Your task to perform on an android device: stop showing notifications on the lock screen Image 0: 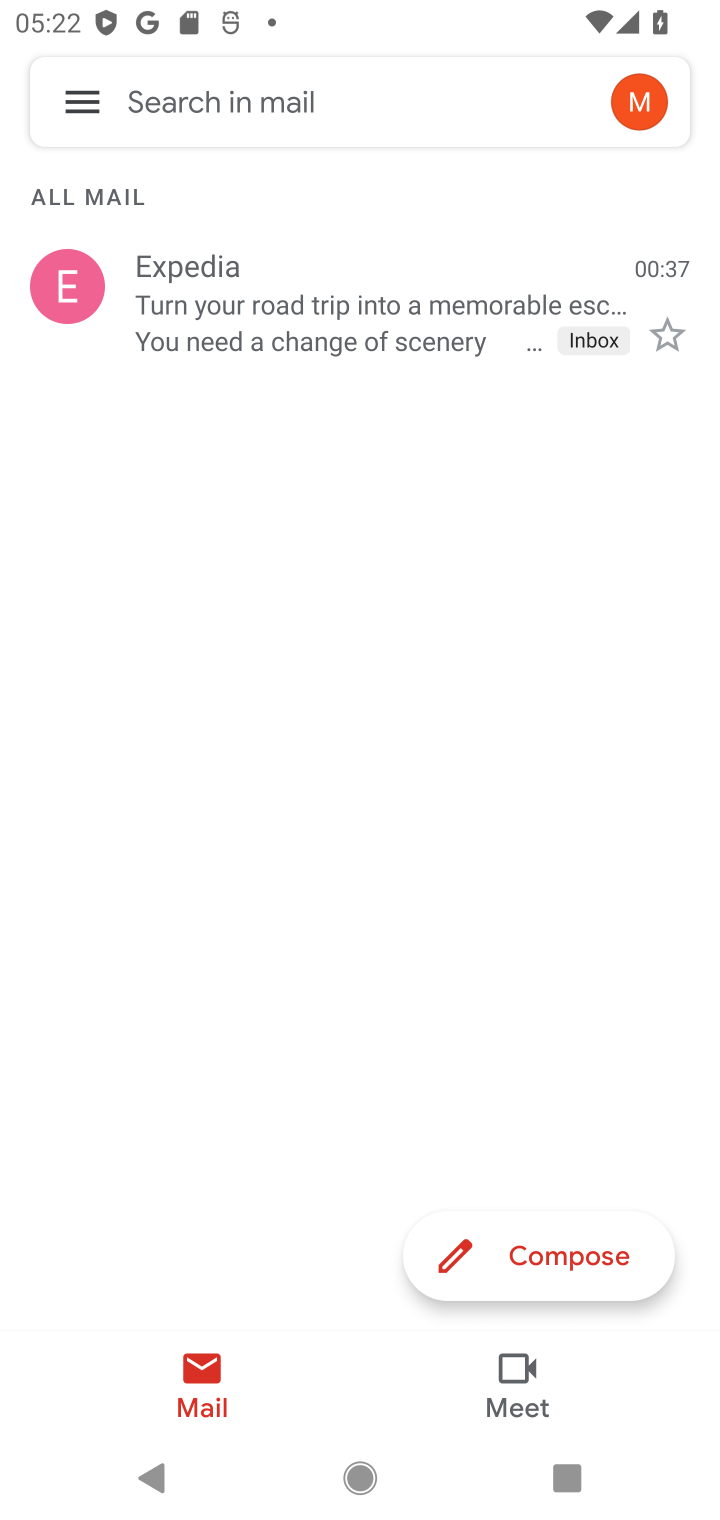
Step 0: press home button
Your task to perform on an android device: stop showing notifications on the lock screen Image 1: 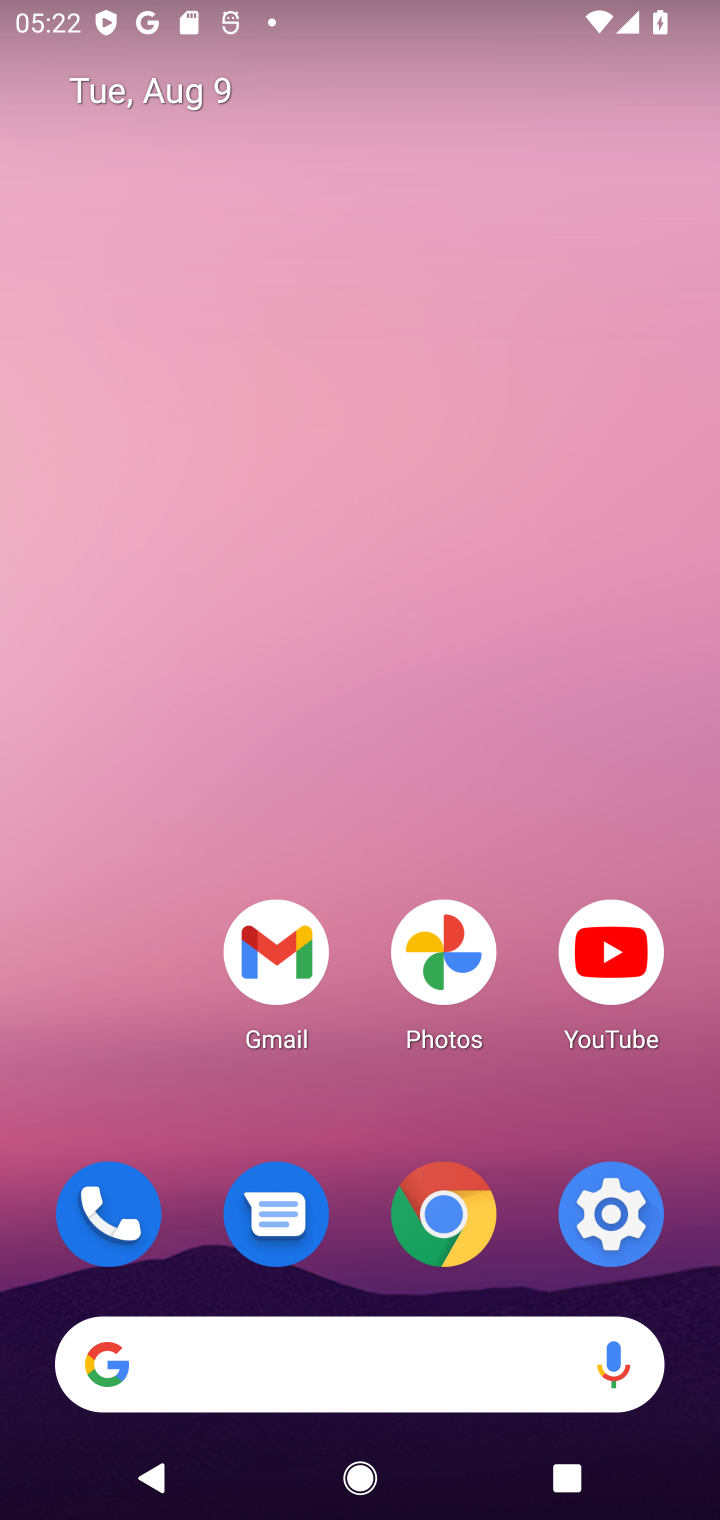
Step 1: drag from (406, 1390) to (329, 369)
Your task to perform on an android device: stop showing notifications on the lock screen Image 2: 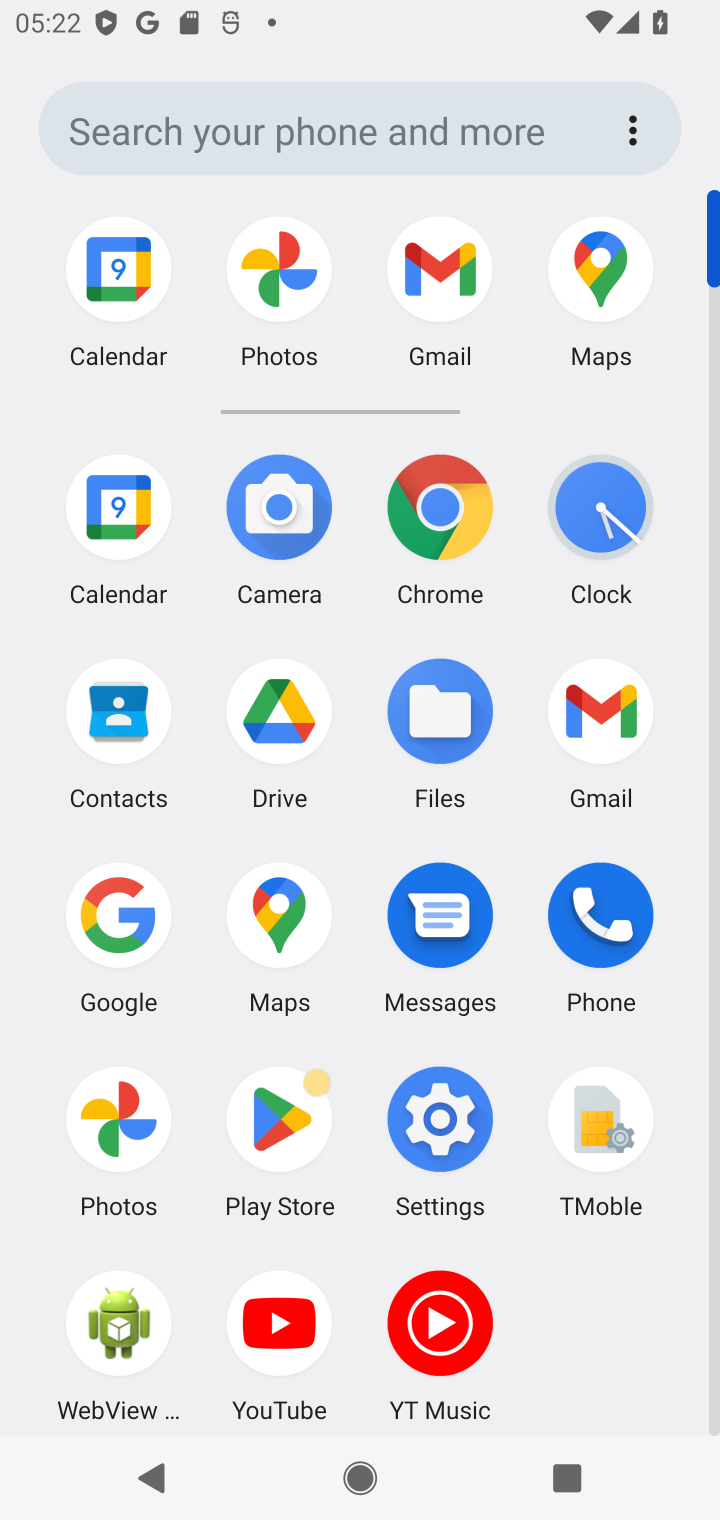
Step 2: click (444, 1111)
Your task to perform on an android device: stop showing notifications on the lock screen Image 3: 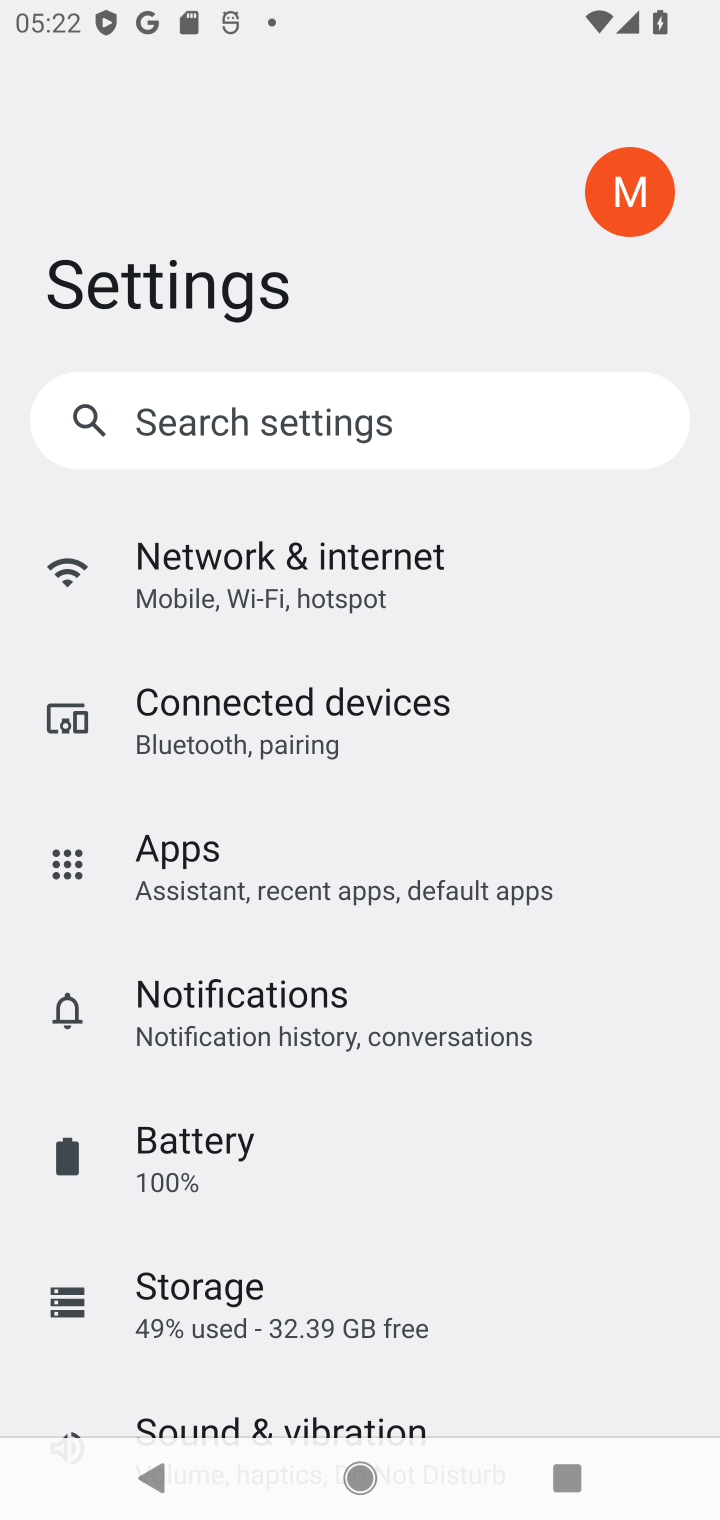
Step 3: click (268, 415)
Your task to perform on an android device: stop showing notifications on the lock screen Image 4: 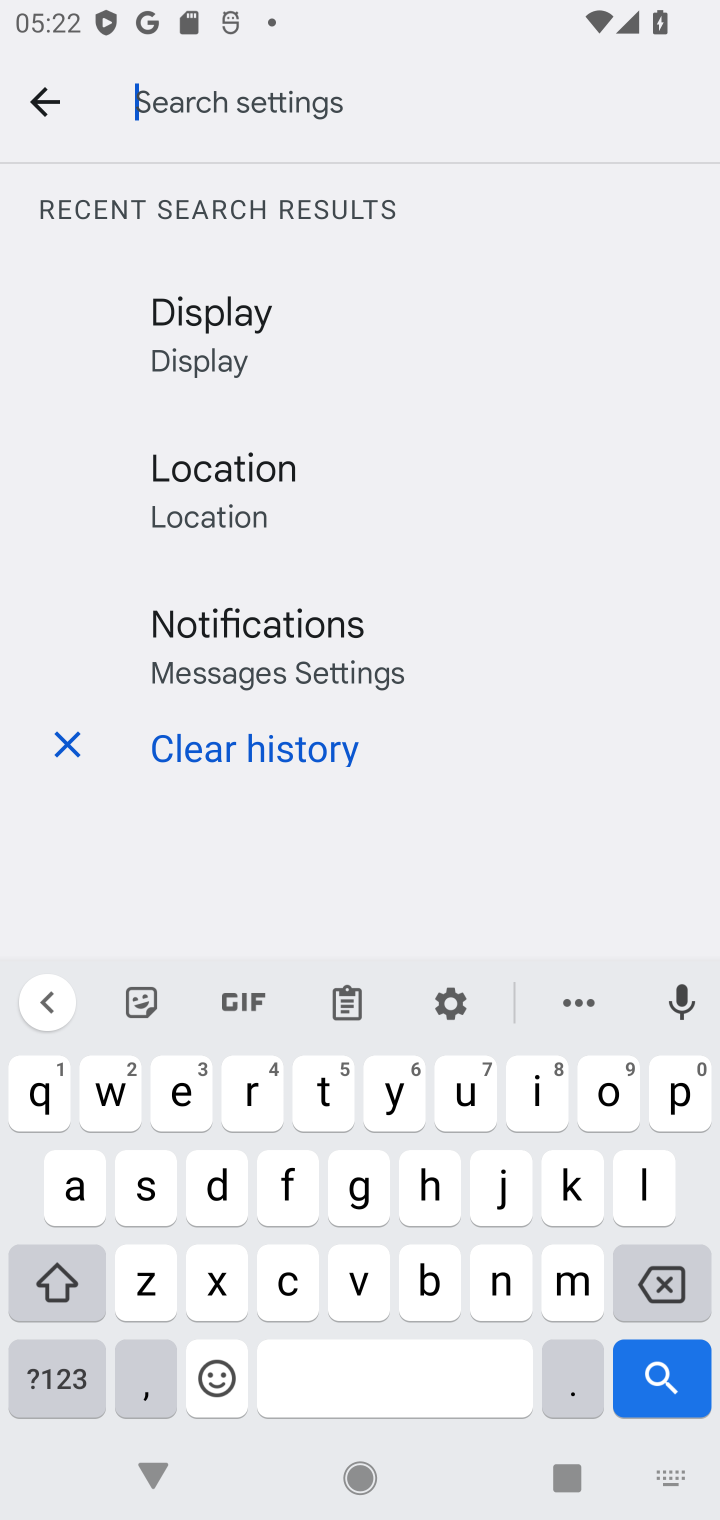
Step 4: click (254, 640)
Your task to perform on an android device: stop showing notifications on the lock screen Image 5: 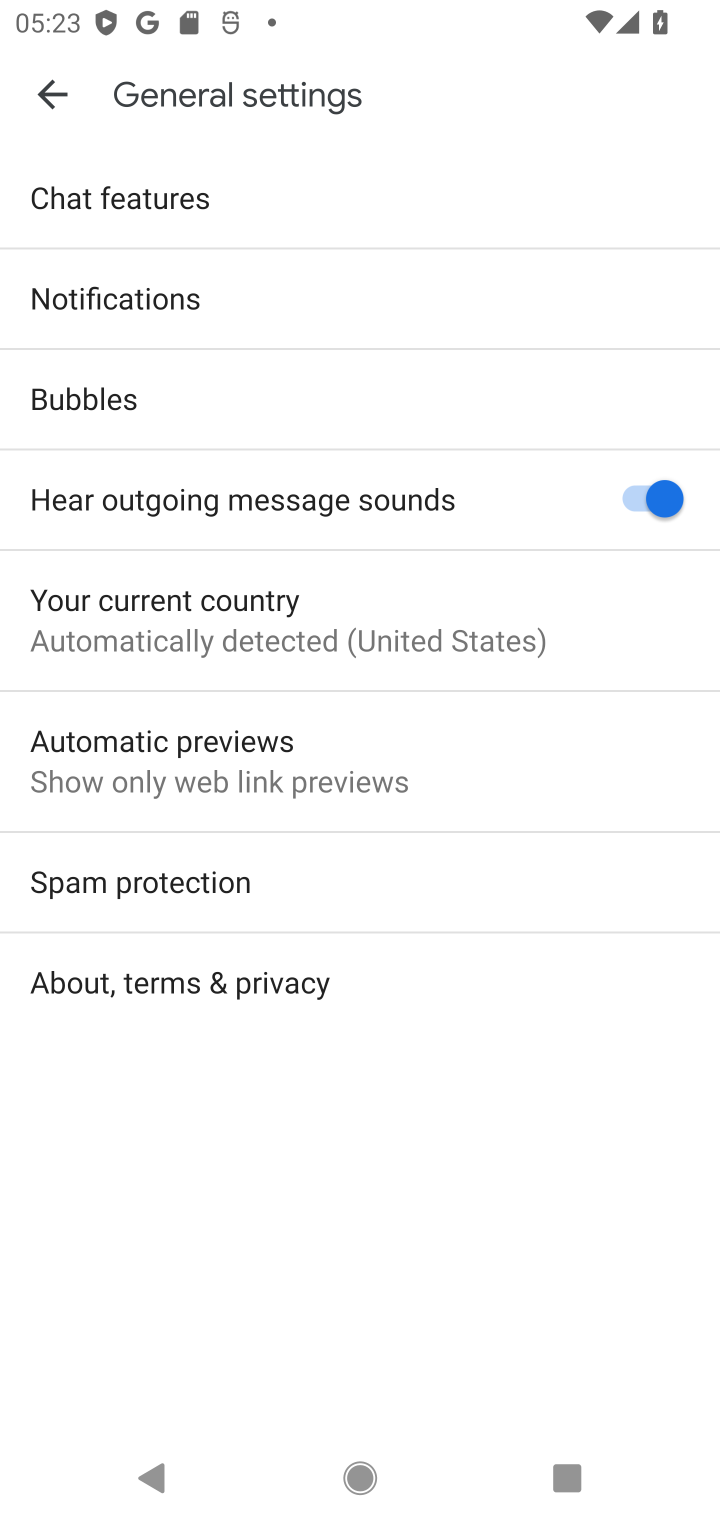
Step 5: click (183, 295)
Your task to perform on an android device: stop showing notifications on the lock screen Image 6: 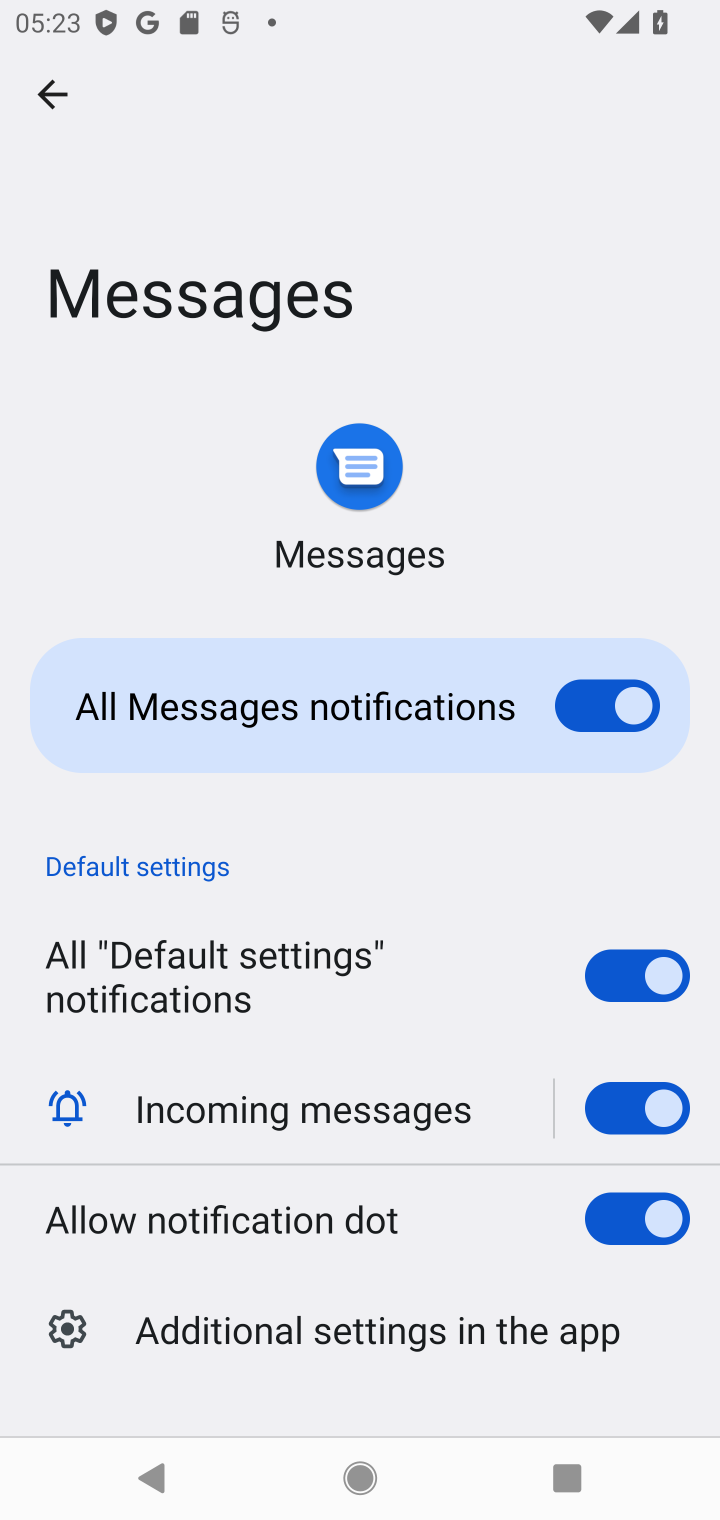
Step 6: click (567, 706)
Your task to perform on an android device: stop showing notifications on the lock screen Image 7: 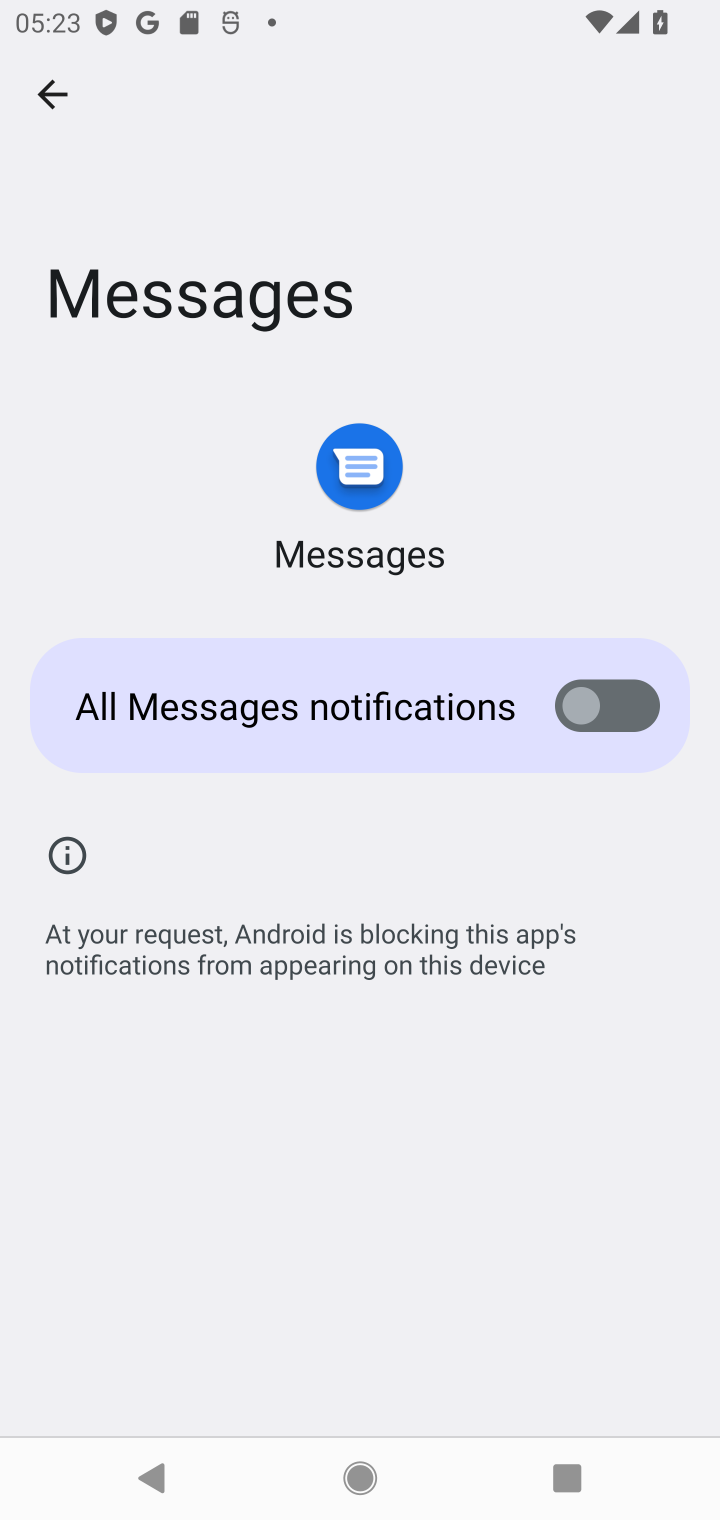
Step 7: task complete